Your task to perform on an android device: turn on priority inbox in the gmail app Image 0: 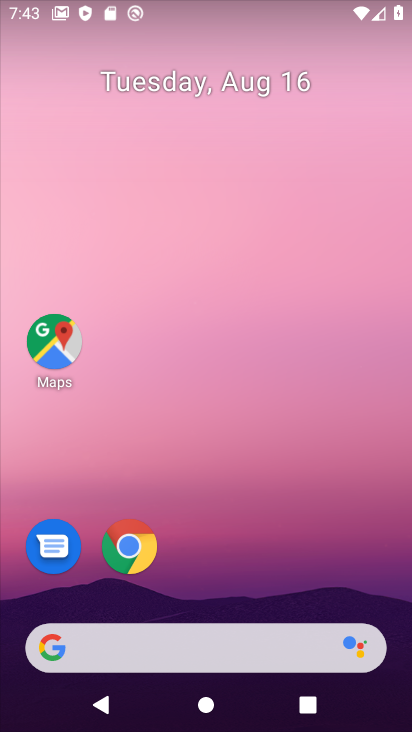
Step 0: drag from (195, 504) to (195, 233)
Your task to perform on an android device: turn on priority inbox in the gmail app Image 1: 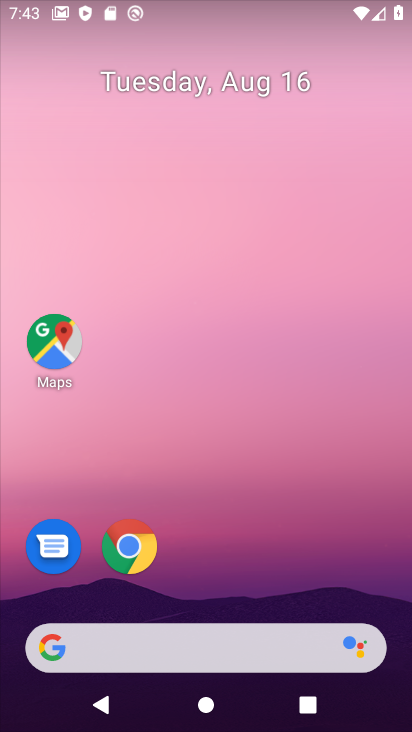
Step 1: drag from (207, 462) to (207, 45)
Your task to perform on an android device: turn on priority inbox in the gmail app Image 2: 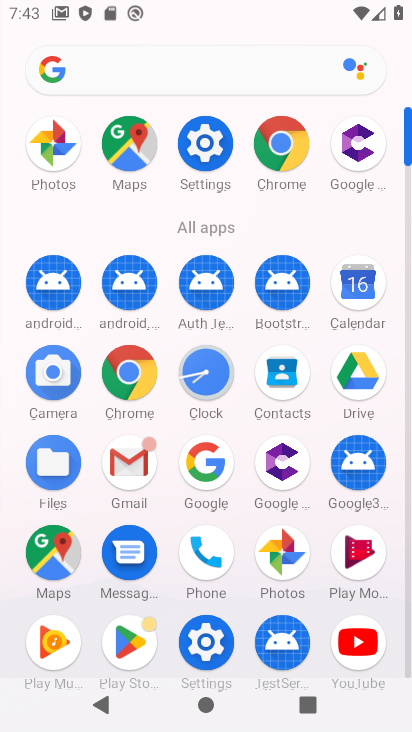
Step 2: click (130, 458)
Your task to perform on an android device: turn on priority inbox in the gmail app Image 3: 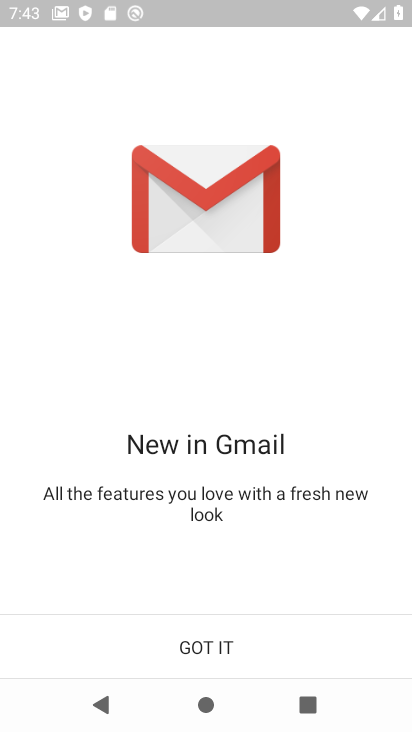
Step 3: click (221, 653)
Your task to perform on an android device: turn on priority inbox in the gmail app Image 4: 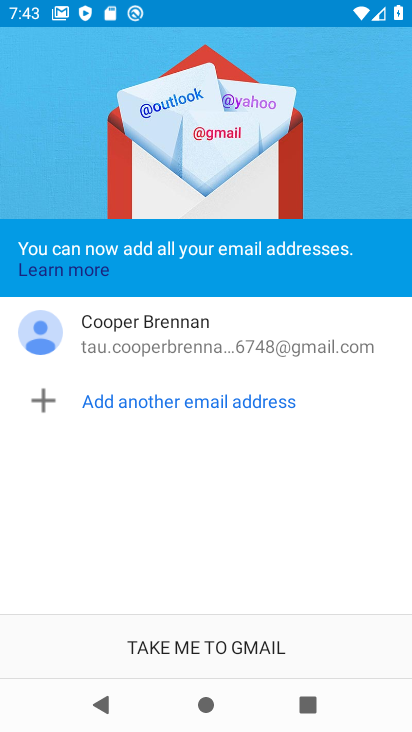
Step 4: click (204, 653)
Your task to perform on an android device: turn on priority inbox in the gmail app Image 5: 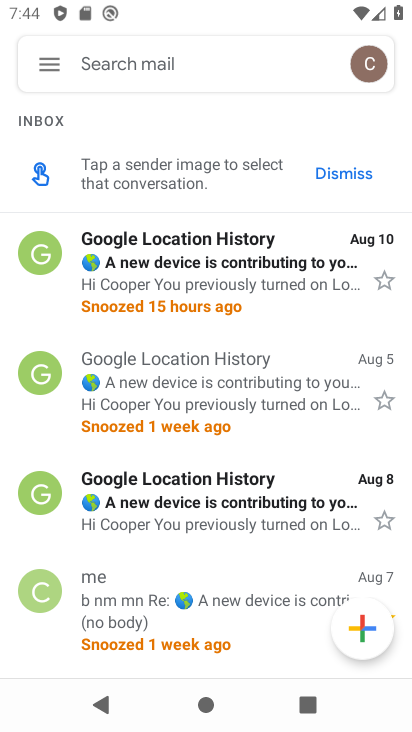
Step 5: click (49, 58)
Your task to perform on an android device: turn on priority inbox in the gmail app Image 6: 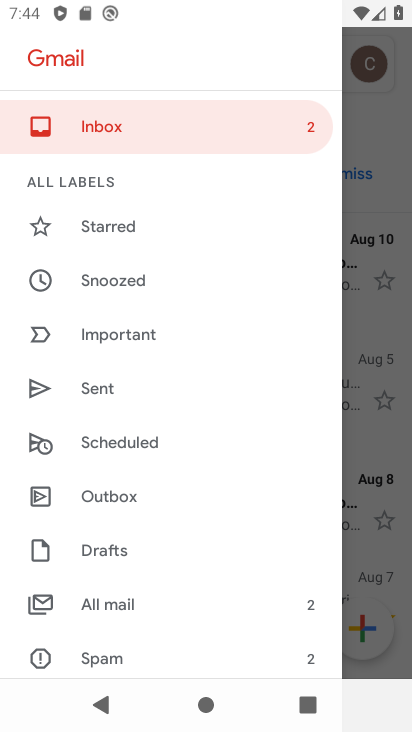
Step 6: drag from (142, 544) to (144, 282)
Your task to perform on an android device: turn on priority inbox in the gmail app Image 7: 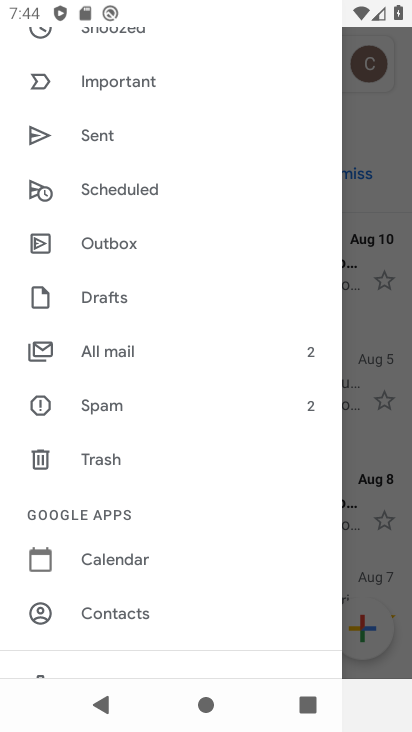
Step 7: drag from (146, 584) to (192, 335)
Your task to perform on an android device: turn on priority inbox in the gmail app Image 8: 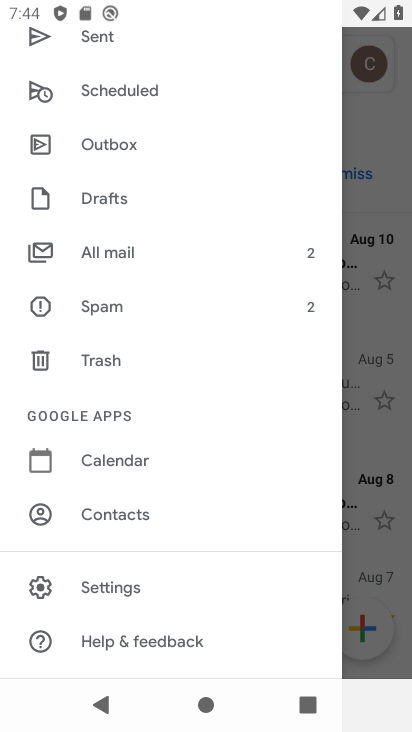
Step 8: click (92, 590)
Your task to perform on an android device: turn on priority inbox in the gmail app Image 9: 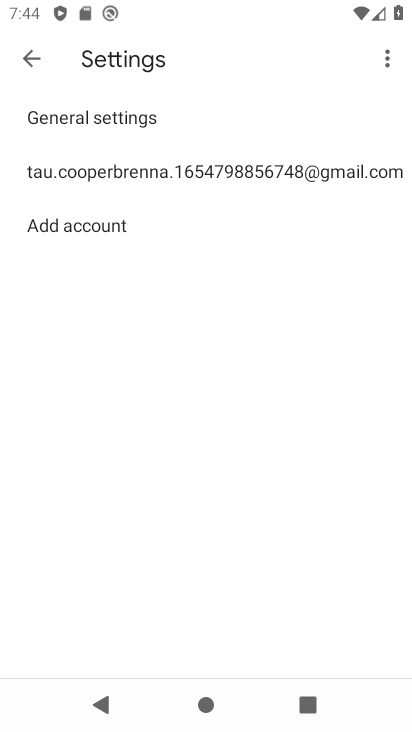
Step 9: click (200, 170)
Your task to perform on an android device: turn on priority inbox in the gmail app Image 10: 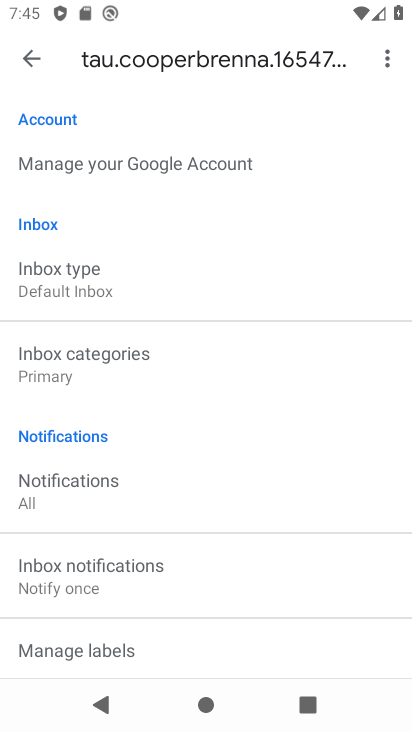
Step 10: click (51, 291)
Your task to perform on an android device: turn on priority inbox in the gmail app Image 11: 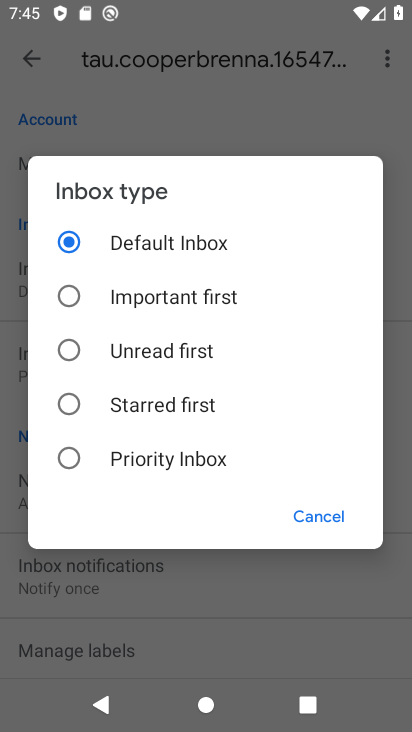
Step 11: click (71, 456)
Your task to perform on an android device: turn on priority inbox in the gmail app Image 12: 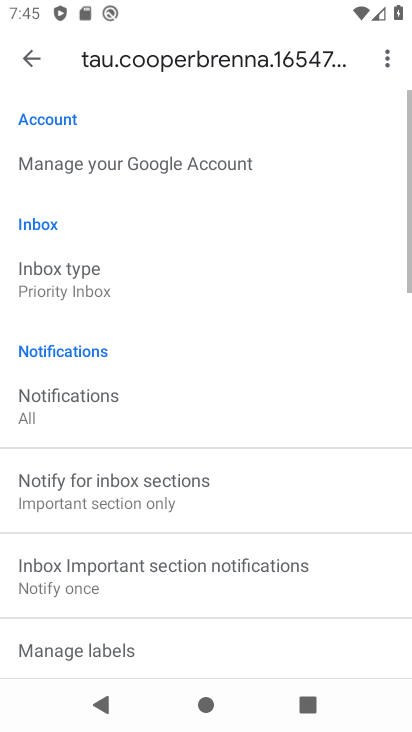
Step 12: task complete